Your task to perform on an android device: Open my contact list Image 0: 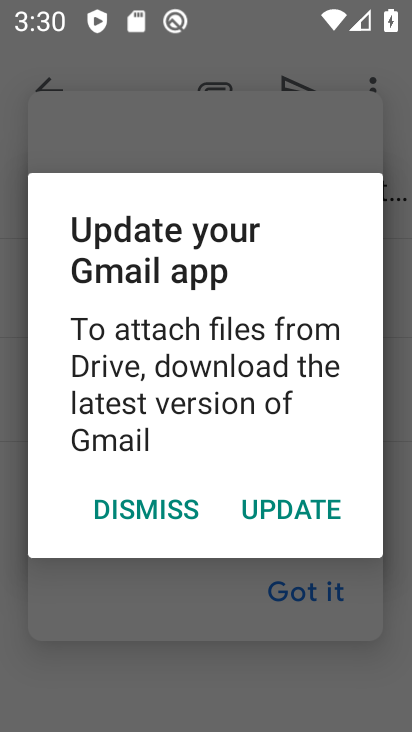
Step 0: press home button
Your task to perform on an android device: Open my contact list Image 1: 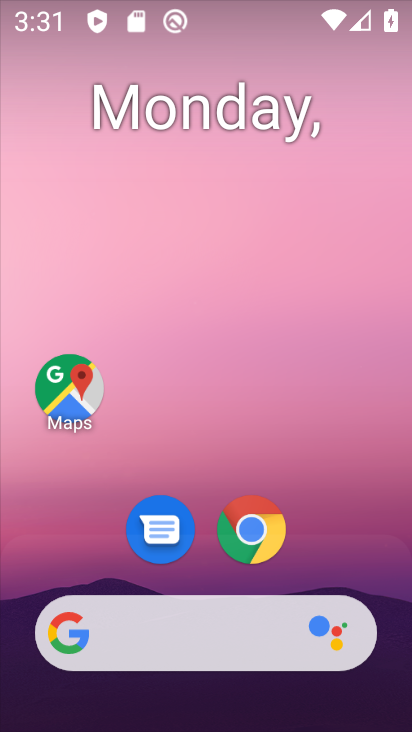
Step 1: drag from (207, 563) to (252, 5)
Your task to perform on an android device: Open my contact list Image 2: 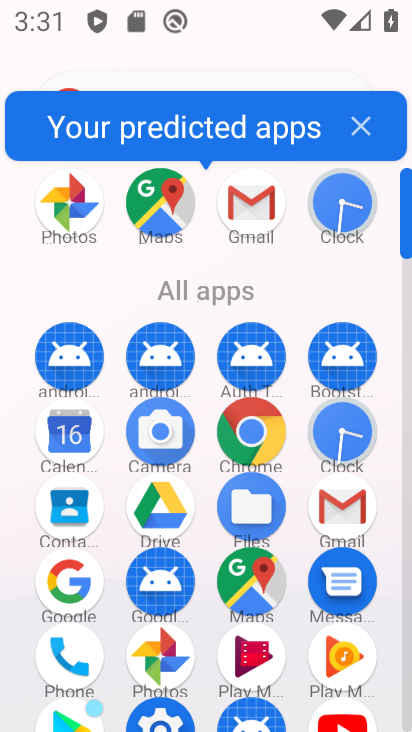
Step 2: drag from (210, 573) to (266, 110)
Your task to perform on an android device: Open my contact list Image 3: 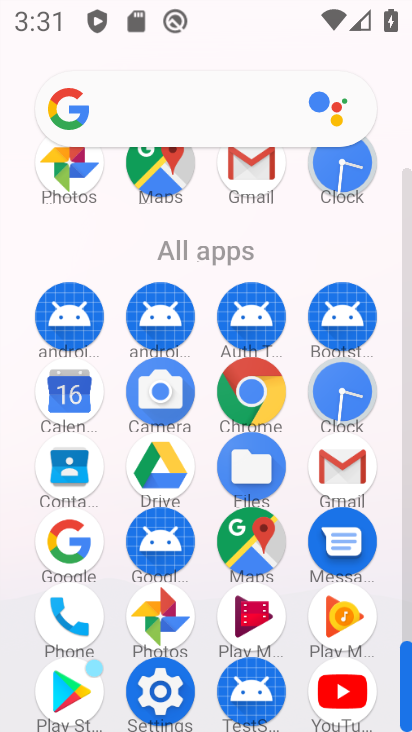
Step 3: click (71, 472)
Your task to perform on an android device: Open my contact list Image 4: 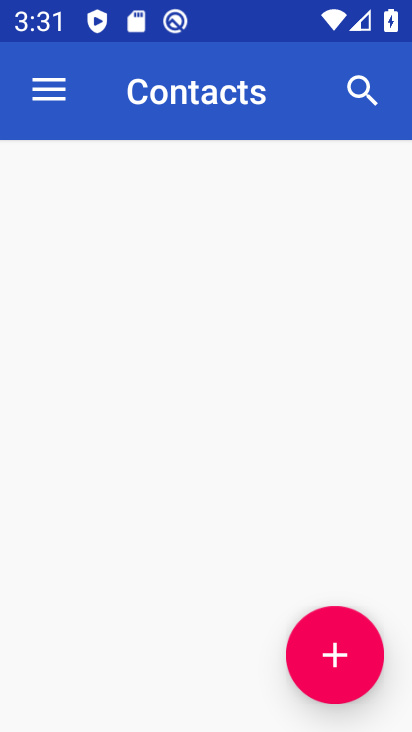
Step 4: task complete